Your task to perform on an android device: Open settings Image 0: 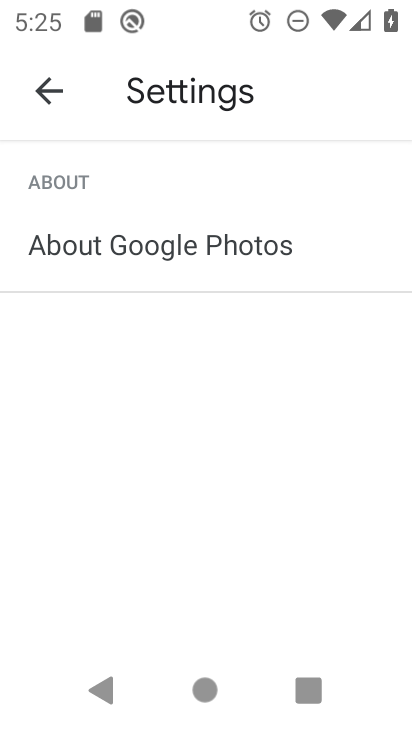
Step 0: press home button
Your task to perform on an android device: Open settings Image 1: 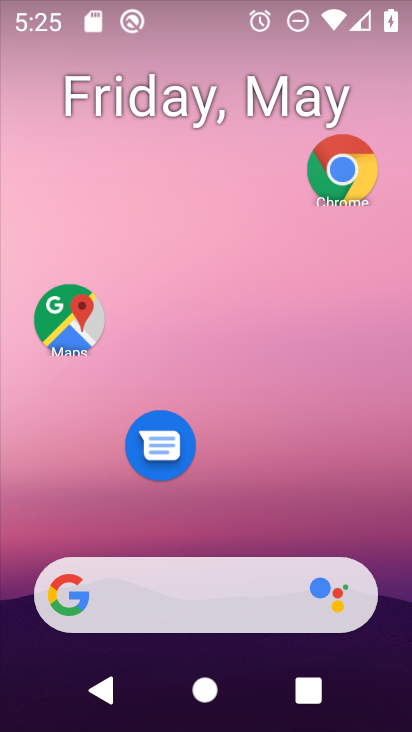
Step 1: drag from (227, 518) to (222, 101)
Your task to perform on an android device: Open settings Image 2: 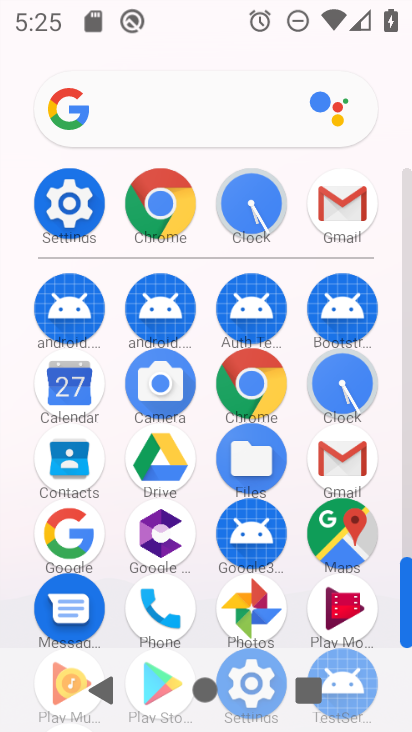
Step 2: click (82, 203)
Your task to perform on an android device: Open settings Image 3: 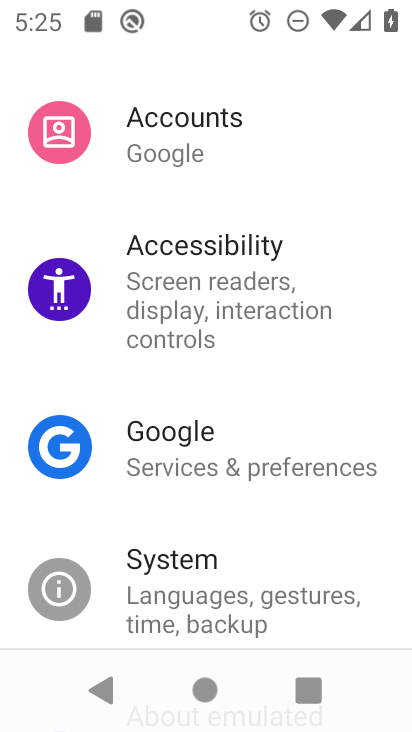
Step 3: task complete